Your task to perform on an android device: turn notification dots off Image 0: 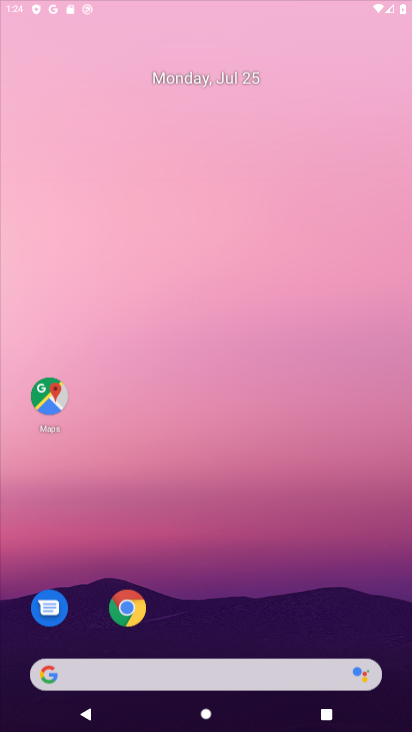
Step 0: click (238, 146)
Your task to perform on an android device: turn notification dots off Image 1: 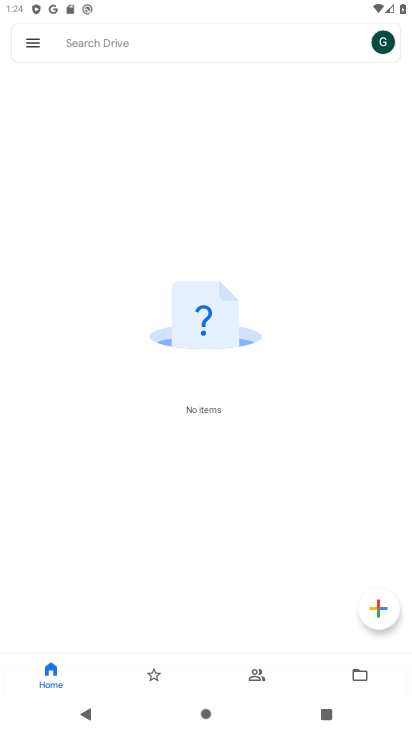
Step 1: press home button
Your task to perform on an android device: turn notification dots off Image 2: 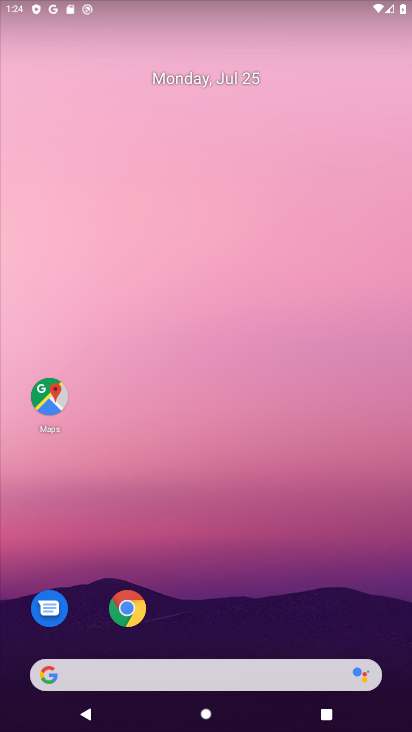
Step 2: drag from (167, 674) to (228, 86)
Your task to perform on an android device: turn notification dots off Image 3: 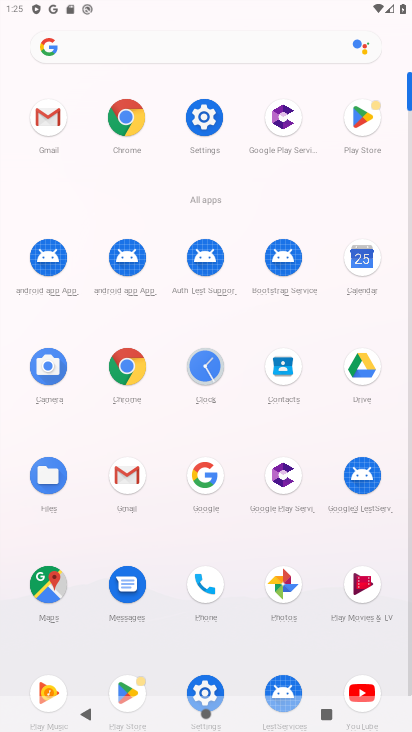
Step 3: click (204, 118)
Your task to perform on an android device: turn notification dots off Image 4: 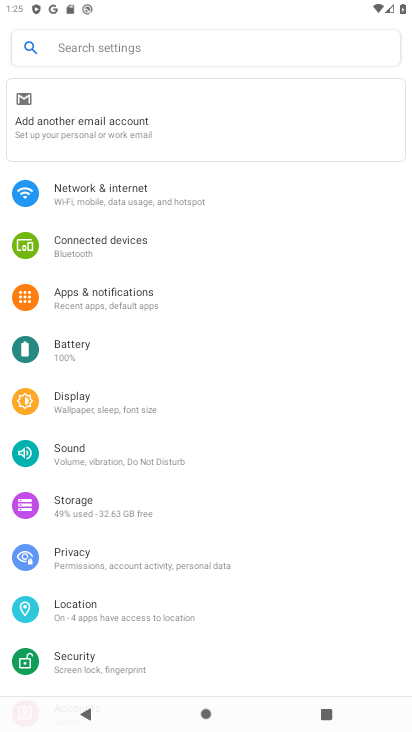
Step 4: click (105, 293)
Your task to perform on an android device: turn notification dots off Image 5: 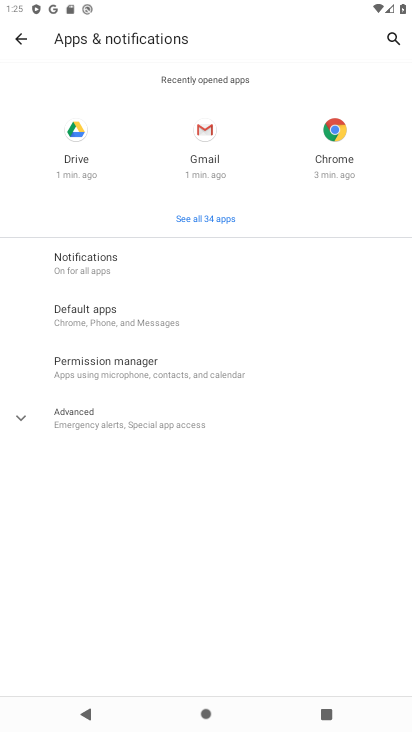
Step 5: click (94, 261)
Your task to perform on an android device: turn notification dots off Image 6: 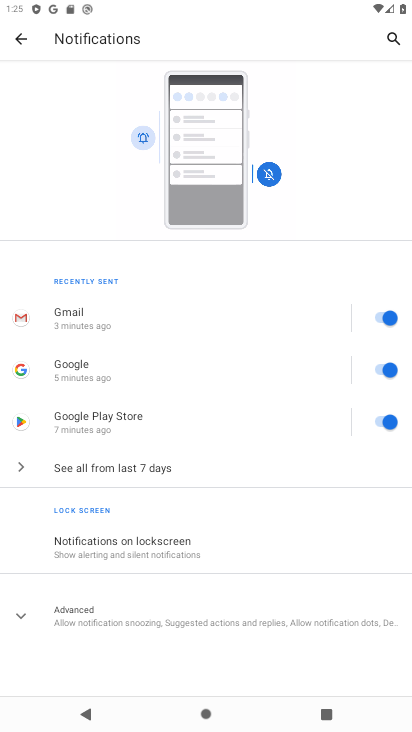
Step 6: click (151, 623)
Your task to perform on an android device: turn notification dots off Image 7: 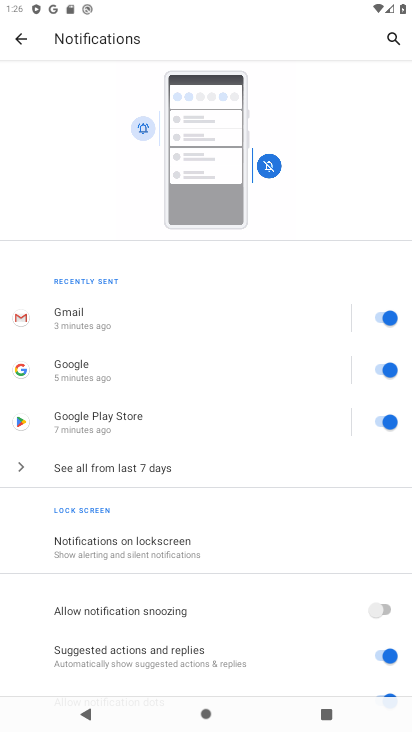
Step 7: drag from (280, 621) to (299, 505)
Your task to perform on an android device: turn notification dots off Image 8: 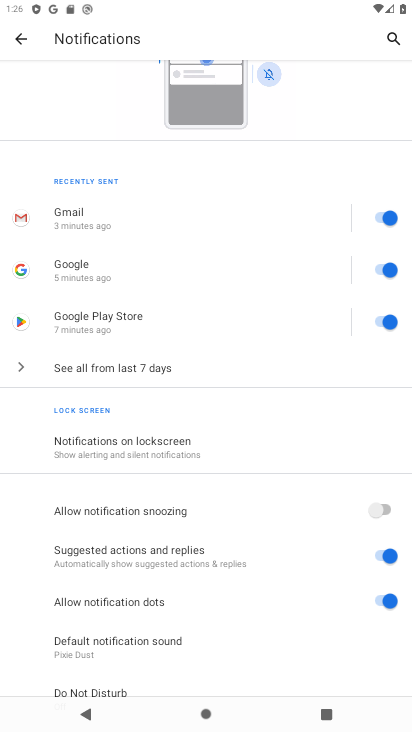
Step 8: click (386, 605)
Your task to perform on an android device: turn notification dots off Image 9: 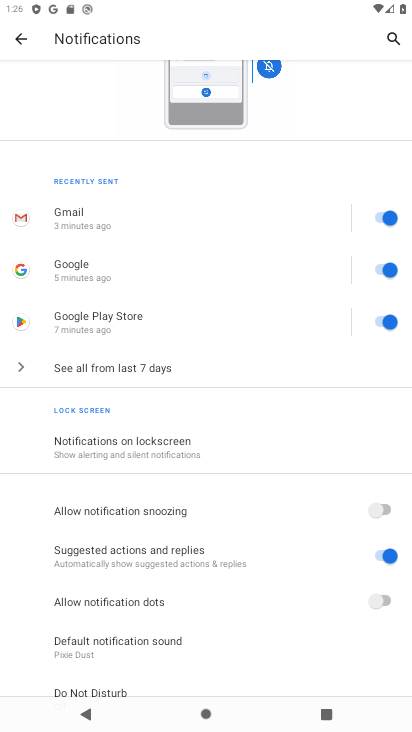
Step 9: task complete